Your task to perform on an android device: Go to battery settings Image 0: 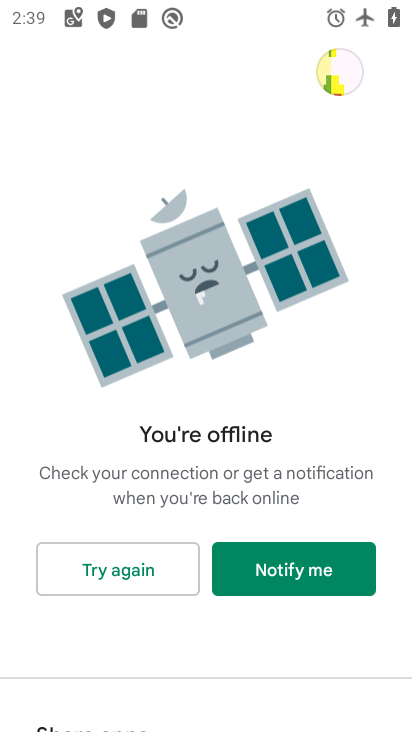
Step 0: press home button
Your task to perform on an android device: Go to battery settings Image 1: 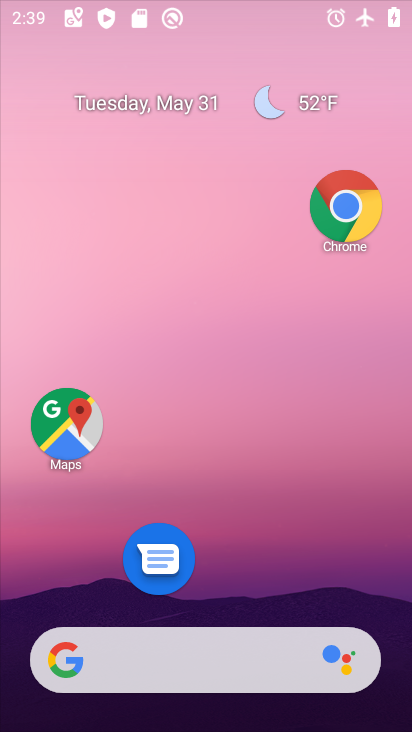
Step 1: drag from (227, 520) to (195, 133)
Your task to perform on an android device: Go to battery settings Image 2: 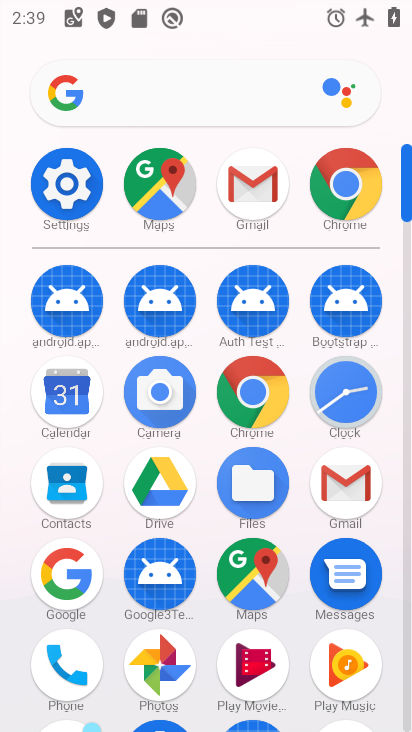
Step 2: drag from (195, 266) to (186, 53)
Your task to perform on an android device: Go to battery settings Image 3: 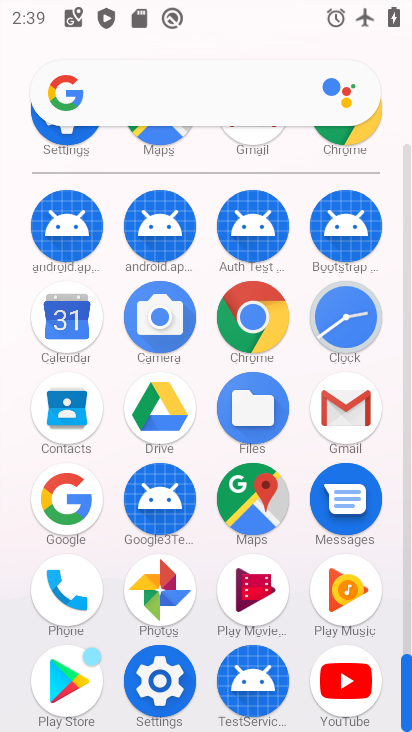
Step 3: click (164, 677)
Your task to perform on an android device: Go to battery settings Image 4: 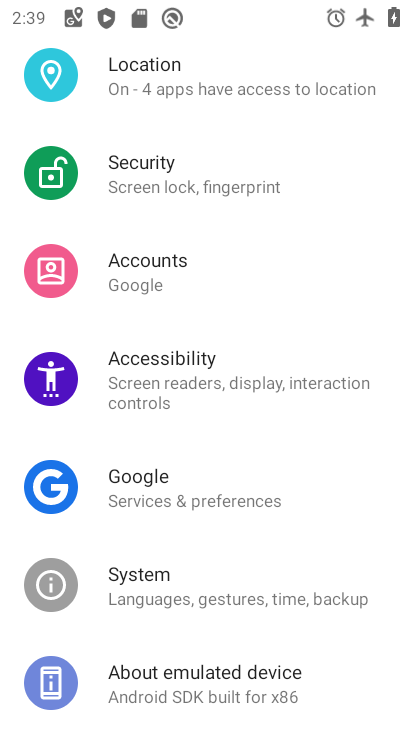
Step 4: drag from (286, 244) to (313, 668)
Your task to perform on an android device: Go to battery settings Image 5: 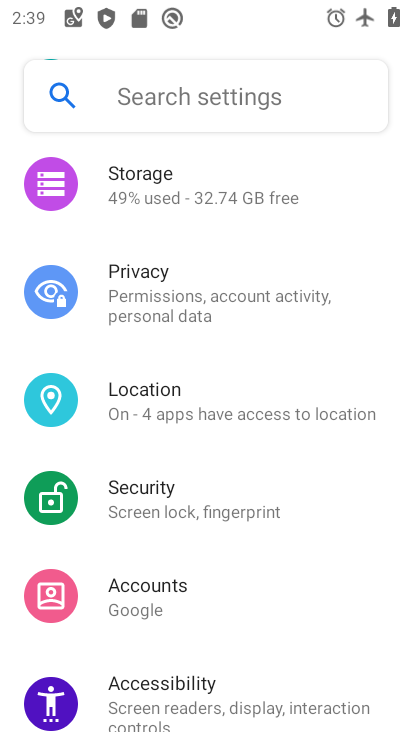
Step 5: drag from (313, 262) to (342, 616)
Your task to perform on an android device: Go to battery settings Image 6: 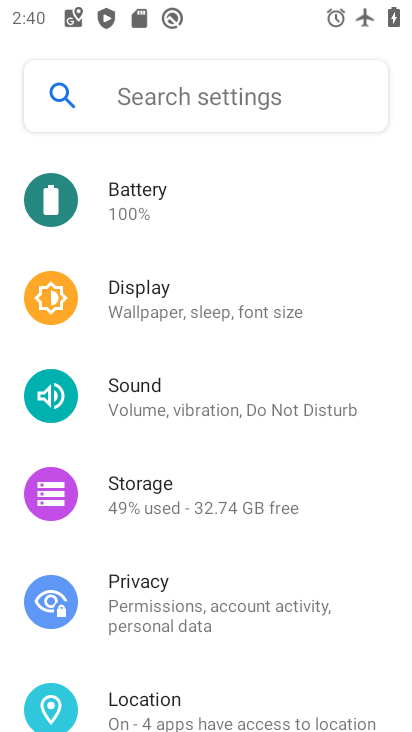
Step 6: click (245, 204)
Your task to perform on an android device: Go to battery settings Image 7: 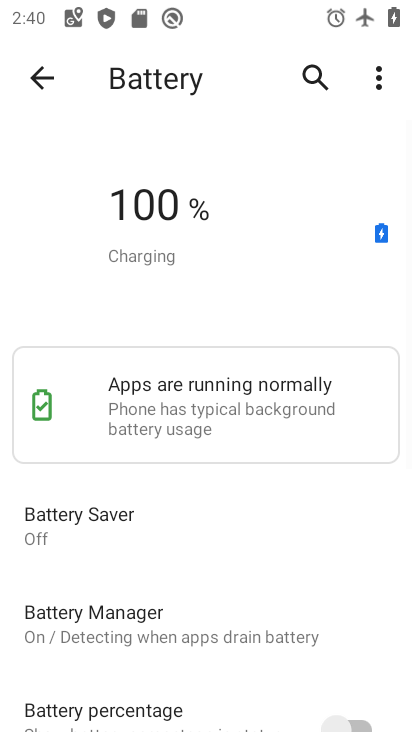
Step 7: task complete